Your task to perform on an android device: Open the map Image 0: 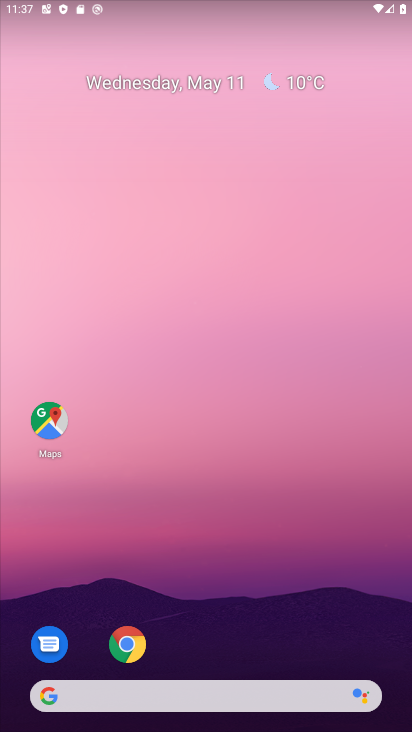
Step 0: press home button
Your task to perform on an android device: Open the map Image 1: 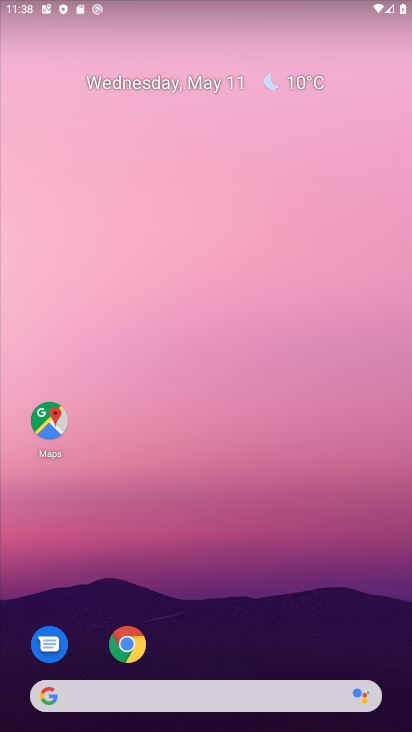
Step 1: click (55, 415)
Your task to perform on an android device: Open the map Image 2: 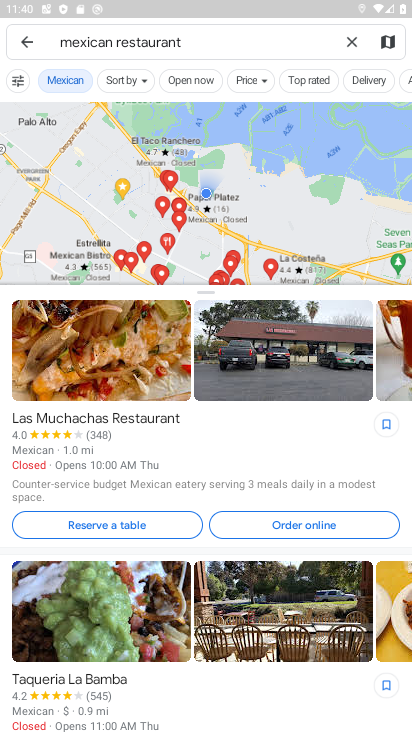
Step 2: click (26, 52)
Your task to perform on an android device: Open the map Image 3: 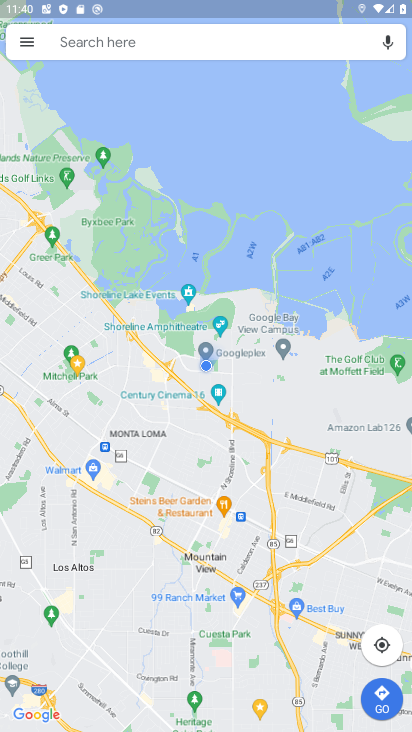
Step 3: click (26, 52)
Your task to perform on an android device: Open the map Image 4: 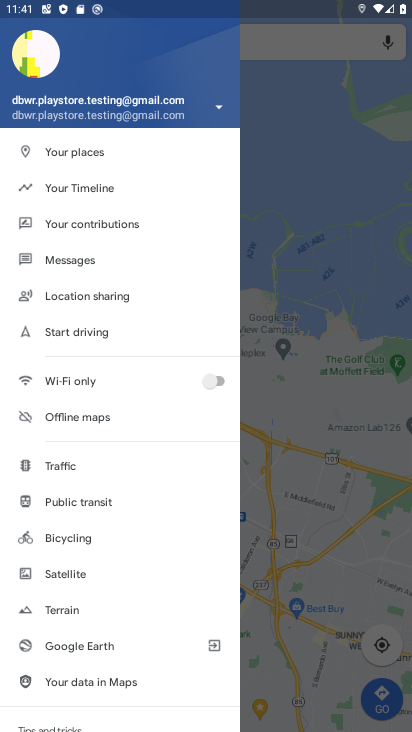
Step 4: task complete